Your task to perform on an android device: What's the weather like in Singapore? Image 0: 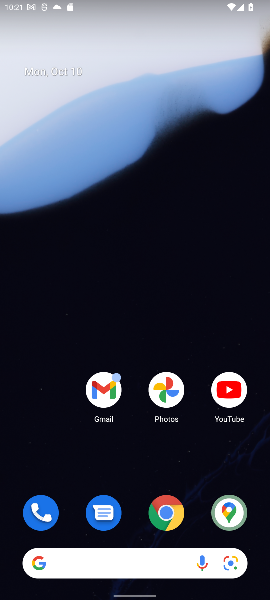
Step 0: click (107, 551)
Your task to perform on an android device: What's the weather like in Singapore? Image 1: 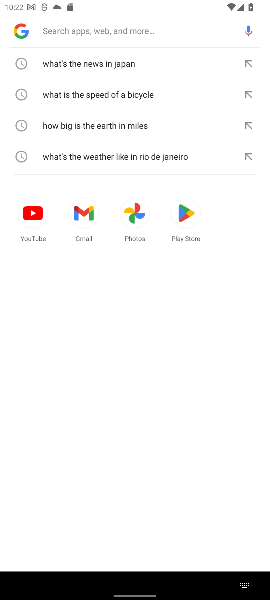
Step 1: type "What's the weather like in Singapore?"
Your task to perform on an android device: What's the weather like in Singapore? Image 2: 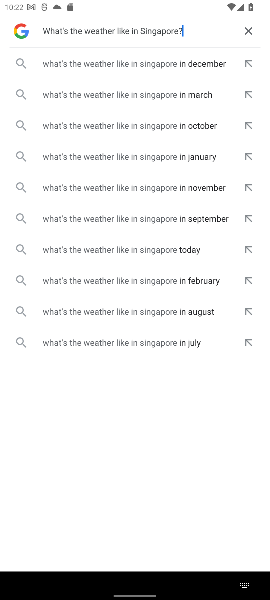
Step 2: click (85, 248)
Your task to perform on an android device: What's the weather like in Singapore? Image 3: 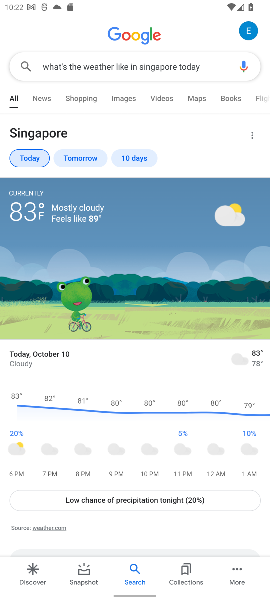
Step 3: task complete